Your task to perform on an android device: delete location history Image 0: 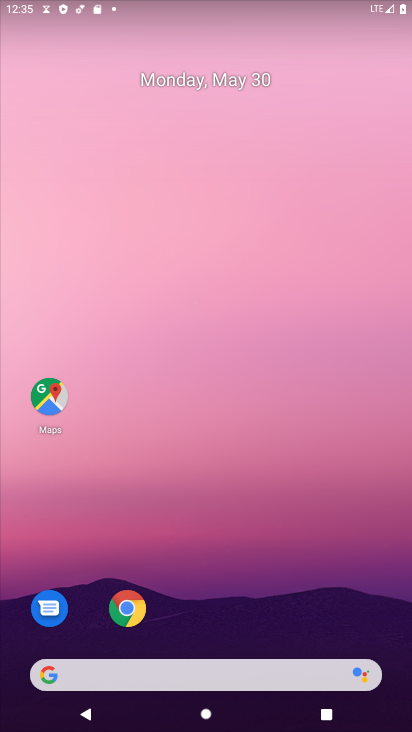
Step 0: drag from (262, 616) to (288, 32)
Your task to perform on an android device: delete location history Image 1: 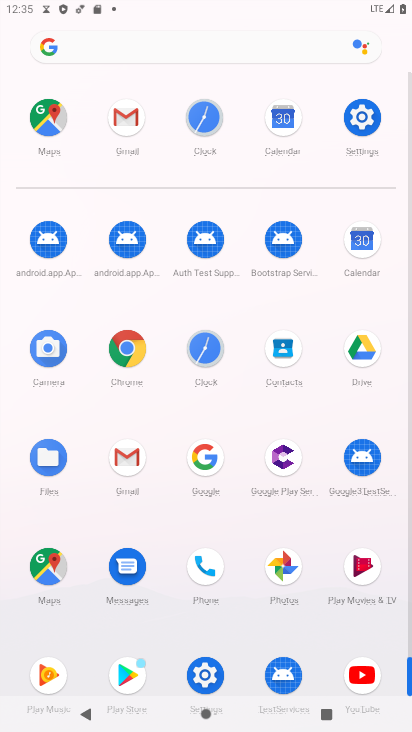
Step 1: click (381, 244)
Your task to perform on an android device: delete location history Image 2: 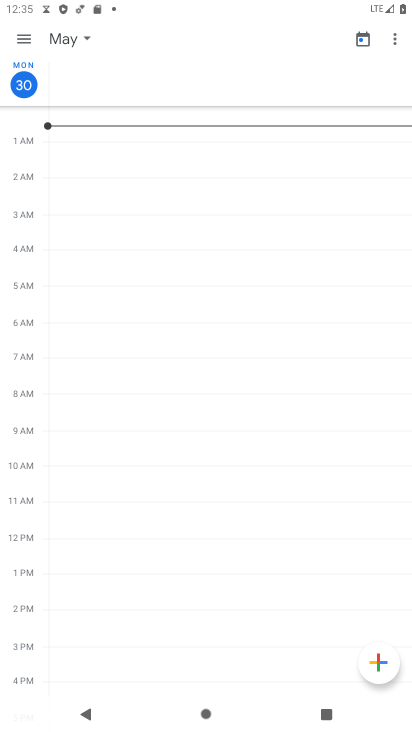
Step 2: press home button
Your task to perform on an android device: delete location history Image 3: 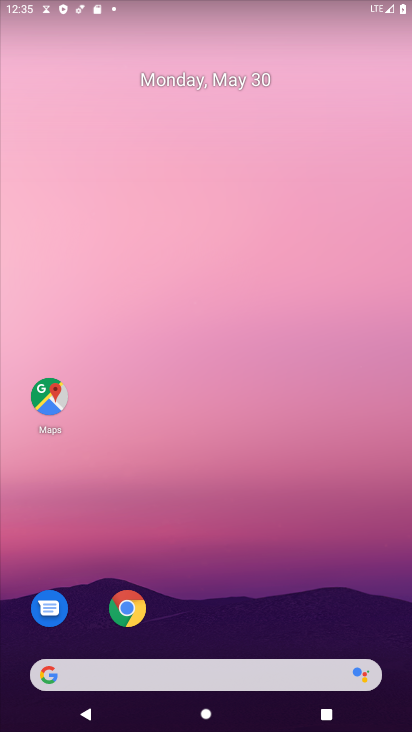
Step 3: click (43, 400)
Your task to perform on an android device: delete location history Image 4: 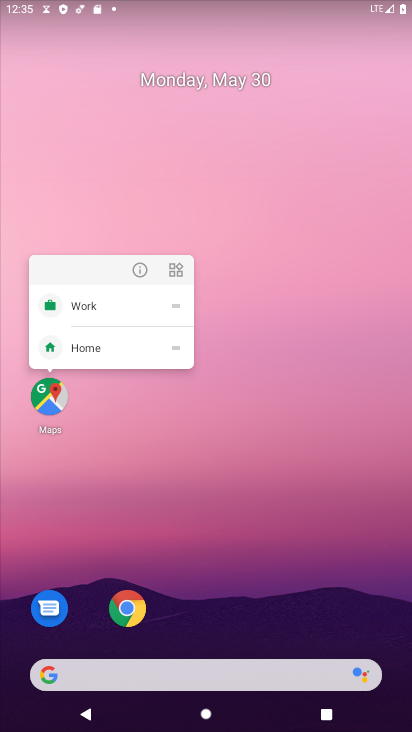
Step 4: click (43, 400)
Your task to perform on an android device: delete location history Image 5: 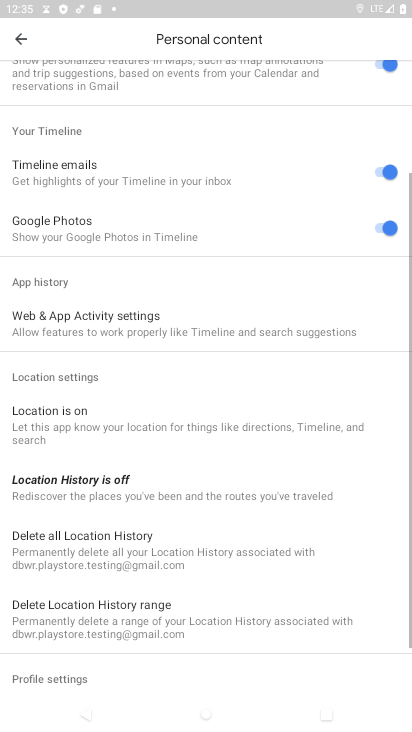
Step 5: click (160, 554)
Your task to perform on an android device: delete location history Image 6: 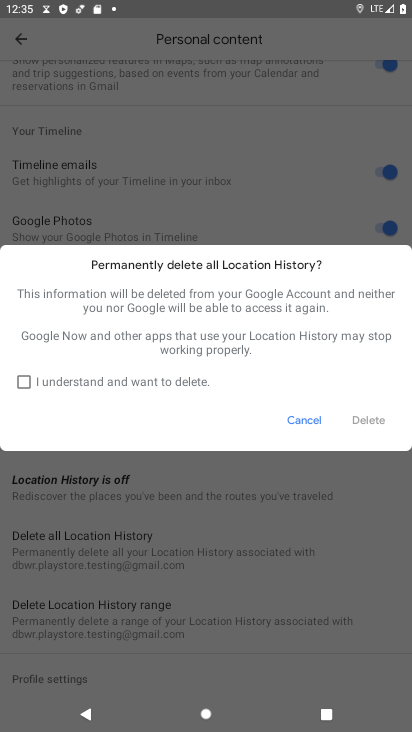
Step 6: click (190, 383)
Your task to perform on an android device: delete location history Image 7: 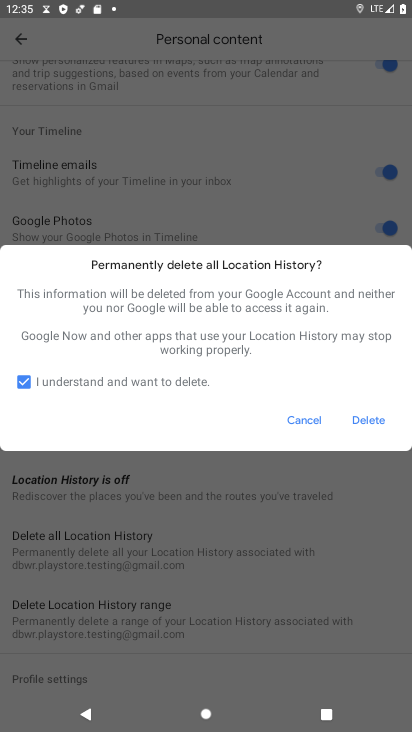
Step 7: click (382, 422)
Your task to perform on an android device: delete location history Image 8: 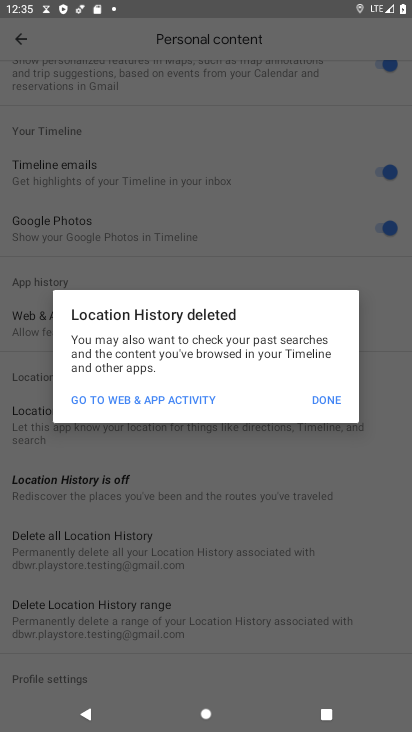
Step 8: click (321, 389)
Your task to perform on an android device: delete location history Image 9: 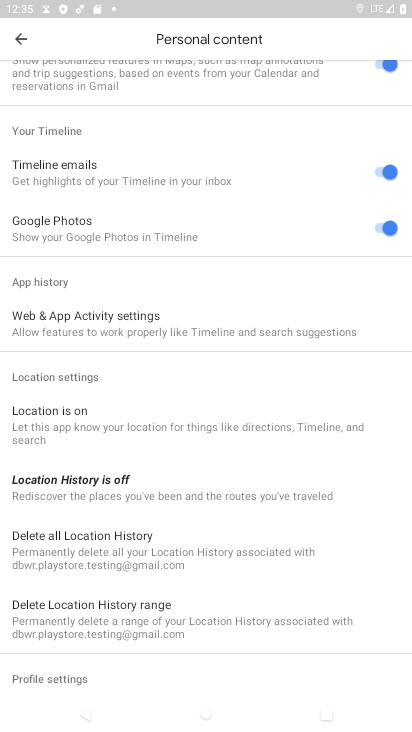
Step 9: task complete